Your task to perform on an android device: toggle show notifications on the lock screen Image 0: 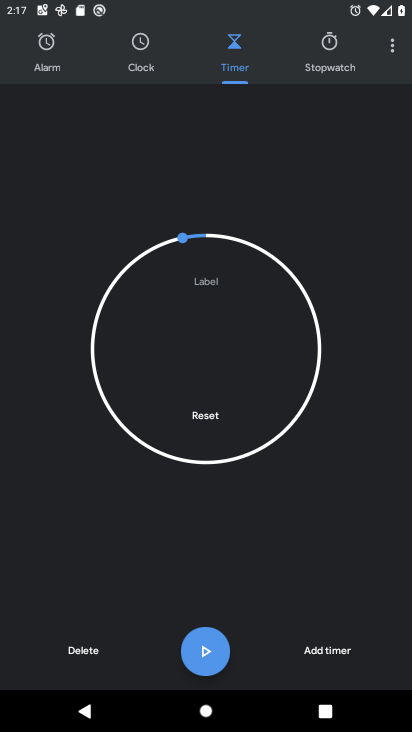
Step 0: press home button
Your task to perform on an android device: toggle show notifications on the lock screen Image 1: 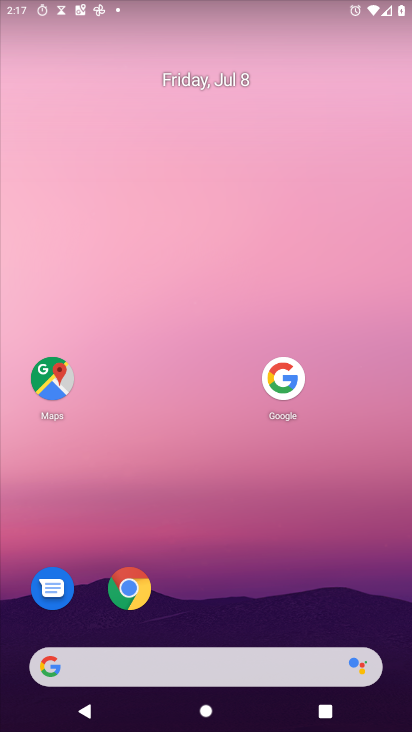
Step 1: drag from (179, 676) to (290, 154)
Your task to perform on an android device: toggle show notifications on the lock screen Image 2: 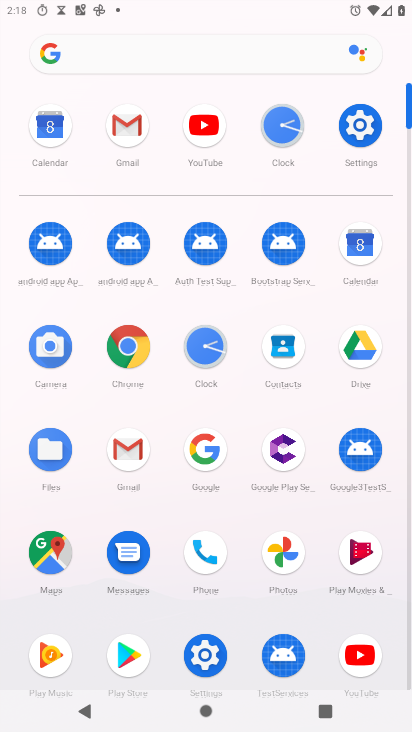
Step 2: click (351, 135)
Your task to perform on an android device: toggle show notifications on the lock screen Image 3: 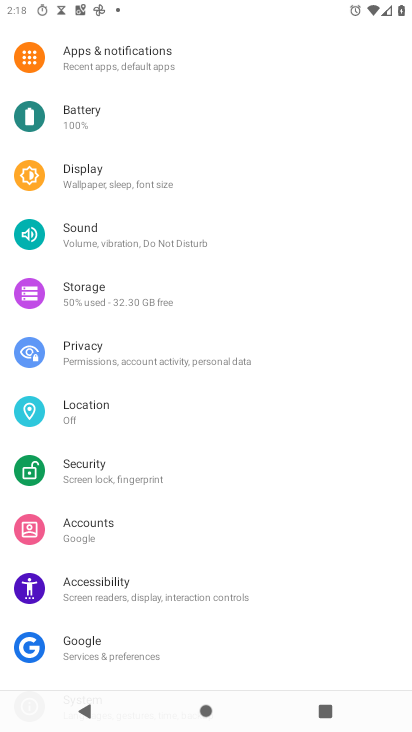
Step 3: click (159, 62)
Your task to perform on an android device: toggle show notifications on the lock screen Image 4: 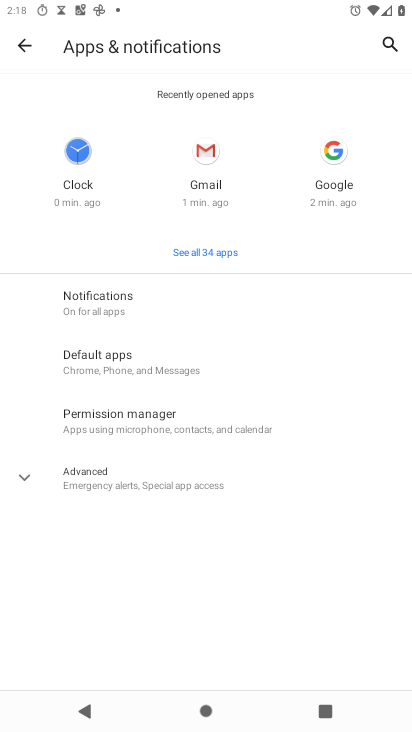
Step 4: click (108, 302)
Your task to perform on an android device: toggle show notifications on the lock screen Image 5: 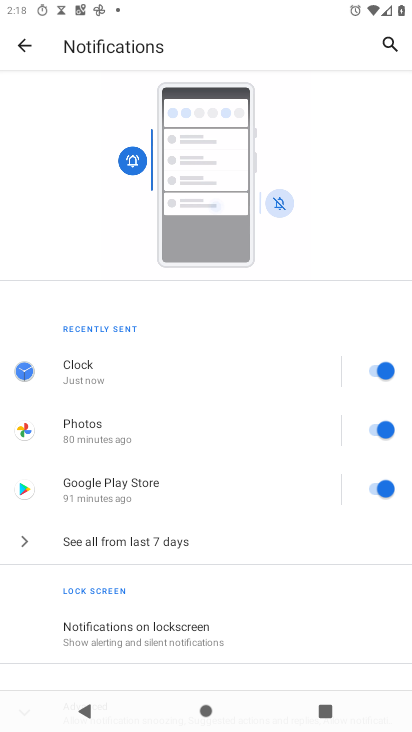
Step 5: drag from (197, 591) to (285, 305)
Your task to perform on an android device: toggle show notifications on the lock screen Image 6: 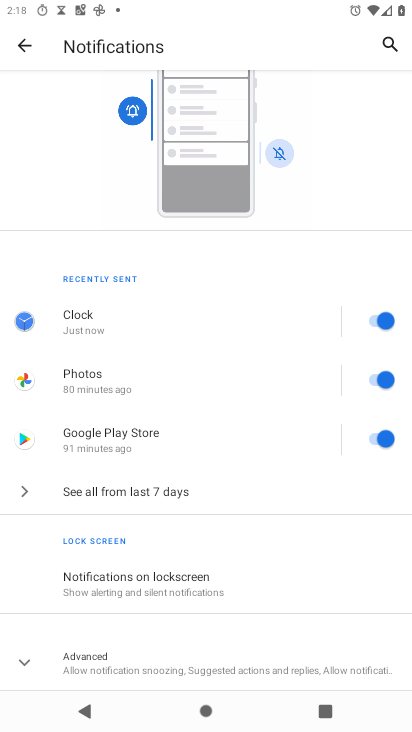
Step 6: click (165, 580)
Your task to perform on an android device: toggle show notifications on the lock screen Image 7: 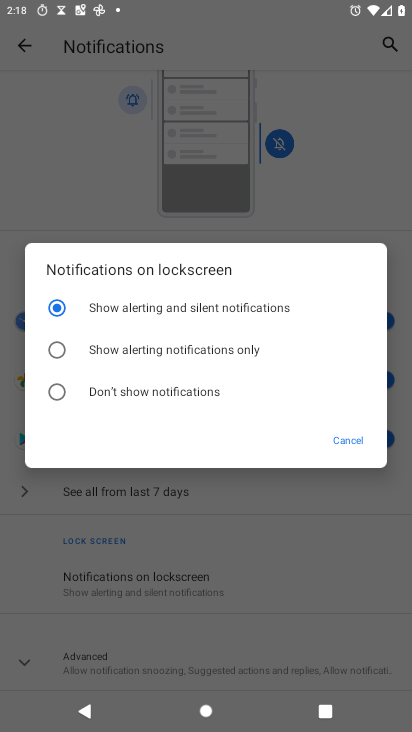
Step 7: click (55, 389)
Your task to perform on an android device: toggle show notifications on the lock screen Image 8: 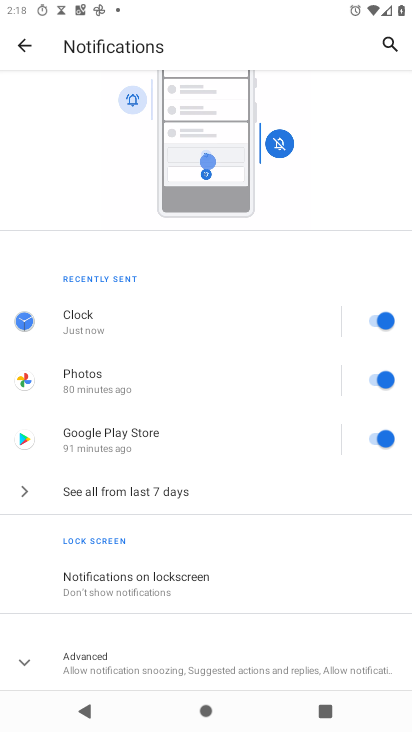
Step 8: task complete